Your task to perform on an android device: check battery use Image 0: 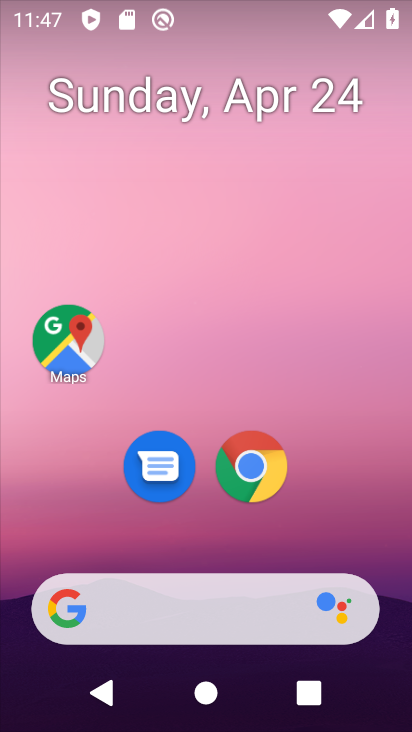
Step 0: drag from (309, 237) to (341, 8)
Your task to perform on an android device: check battery use Image 1: 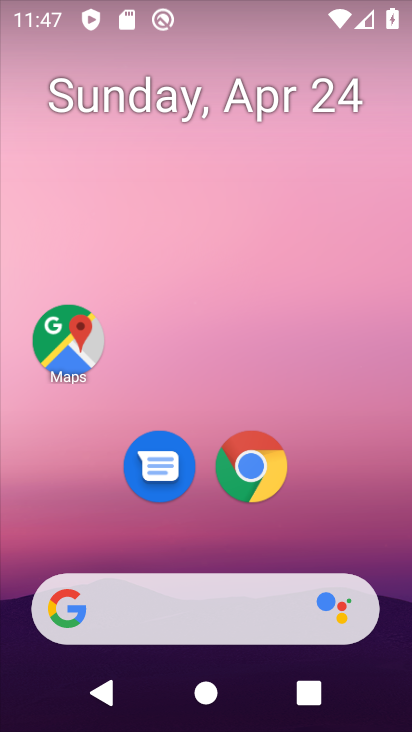
Step 1: drag from (252, 544) to (284, 36)
Your task to perform on an android device: check battery use Image 2: 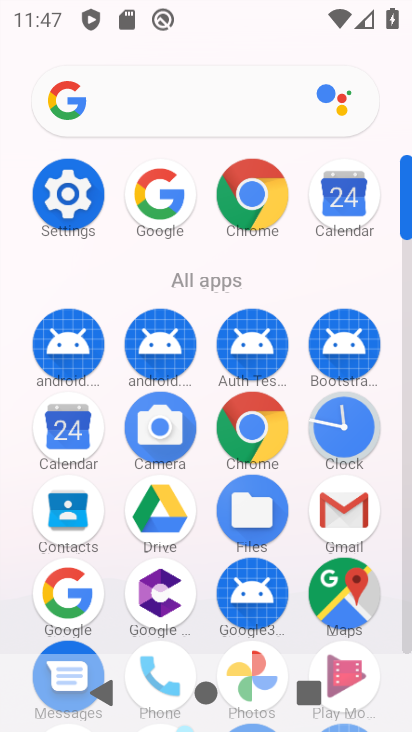
Step 2: click (82, 189)
Your task to perform on an android device: check battery use Image 3: 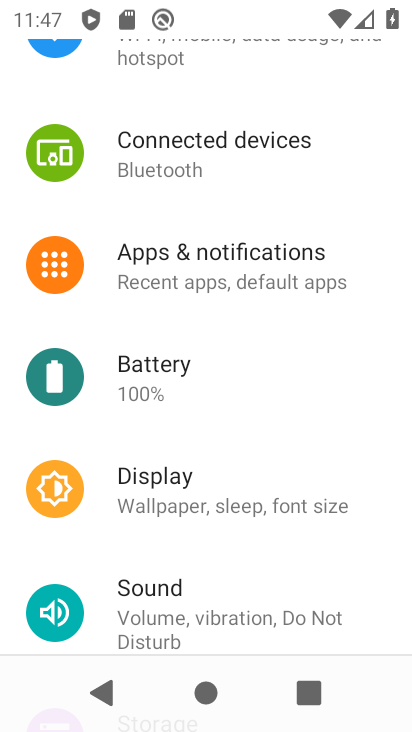
Step 3: click (83, 206)
Your task to perform on an android device: check battery use Image 4: 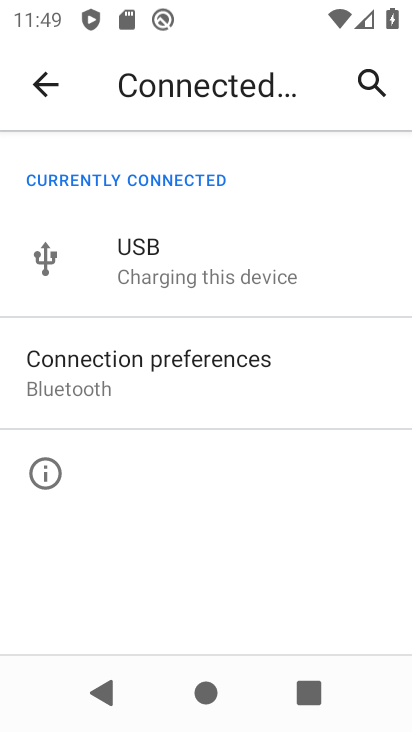
Step 4: press home button
Your task to perform on an android device: check battery use Image 5: 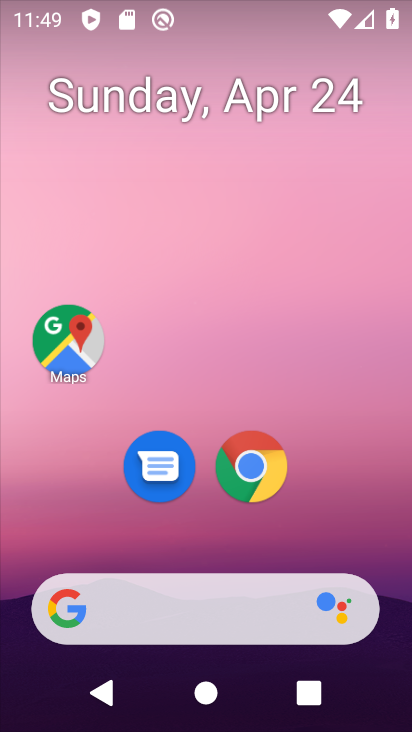
Step 5: drag from (248, 522) to (272, 18)
Your task to perform on an android device: check battery use Image 6: 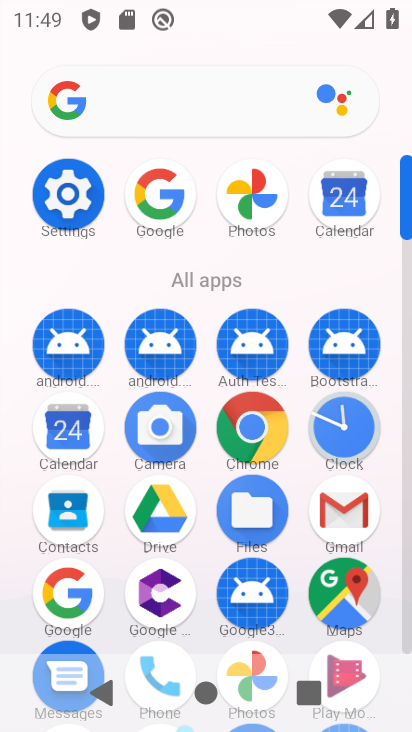
Step 6: click (97, 165)
Your task to perform on an android device: check battery use Image 7: 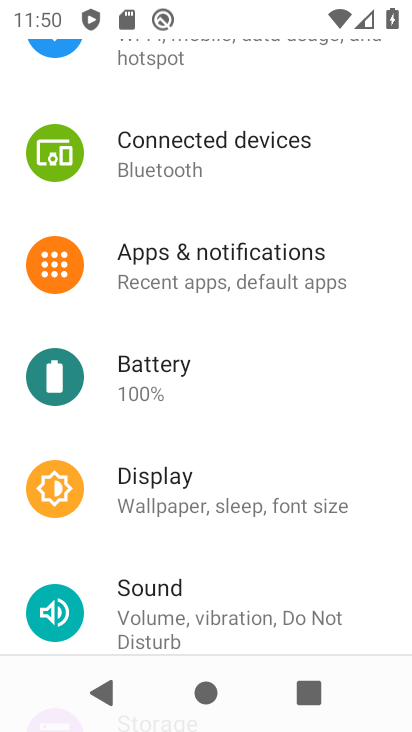
Step 7: click (226, 375)
Your task to perform on an android device: check battery use Image 8: 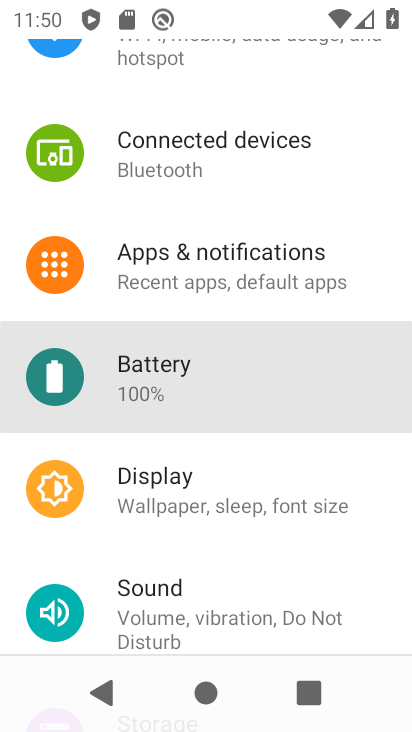
Step 8: click (221, 367)
Your task to perform on an android device: check battery use Image 9: 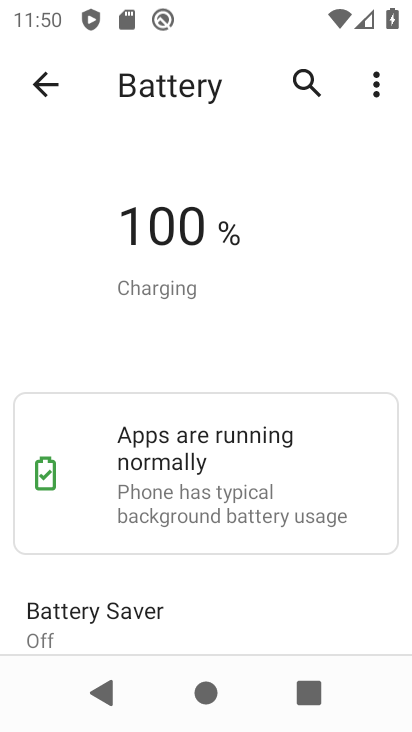
Step 9: task complete